Your task to perform on an android device: toggle show notifications on the lock screen Image 0: 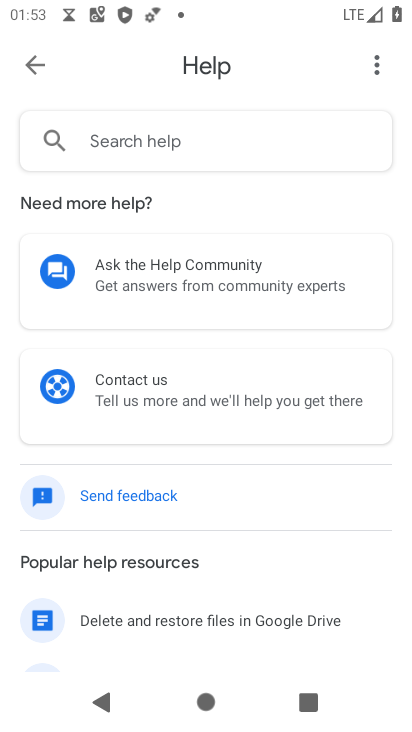
Step 0: press home button
Your task to perform on an android device: toggle show notifications on the lock screen Image 1: 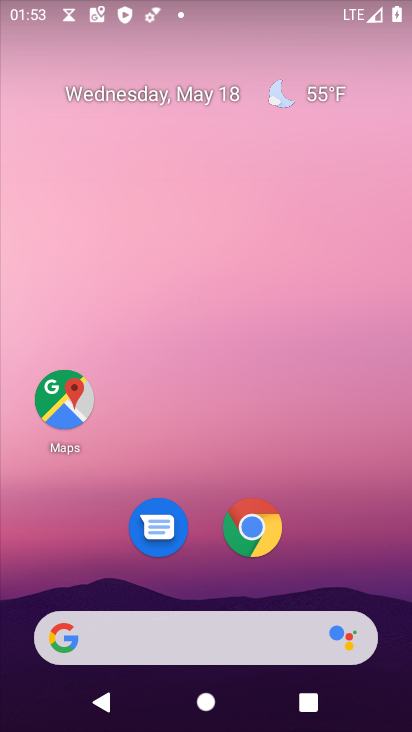
Step 1: drag from (291, 333) to (238, 138)
Your task to perform on an android device: toggle show notifications on the lock screen Image 2: 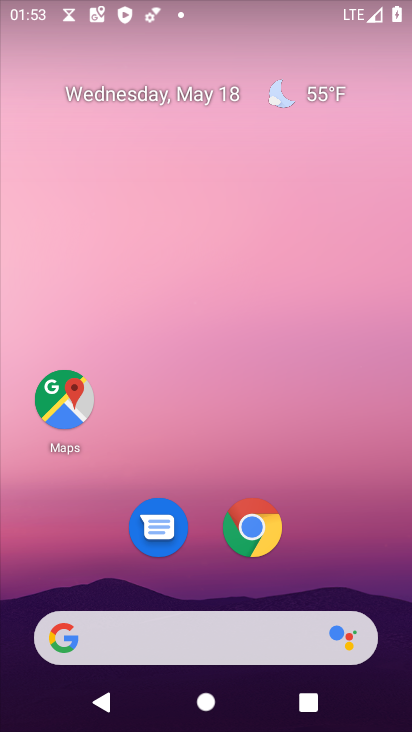
Step 2: drag from (307, 418) to (221, 12)
Your task to perform on an android device: toggle show notifications on the lock screen Image 3: 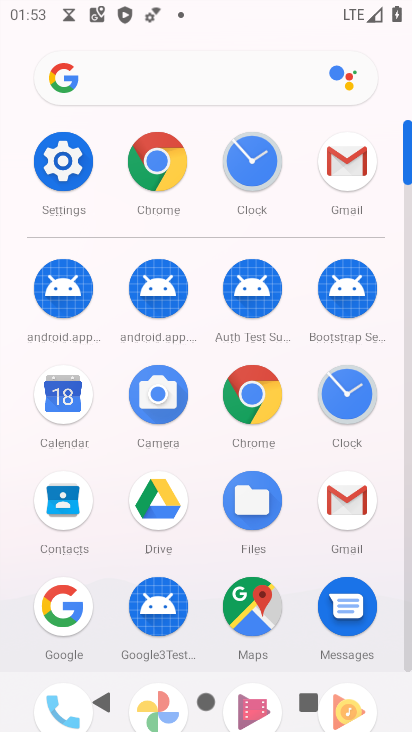
Step 3: click (74, 179)
Your task to perform on an android device: toggle show notifications on the lock screen Image 4: 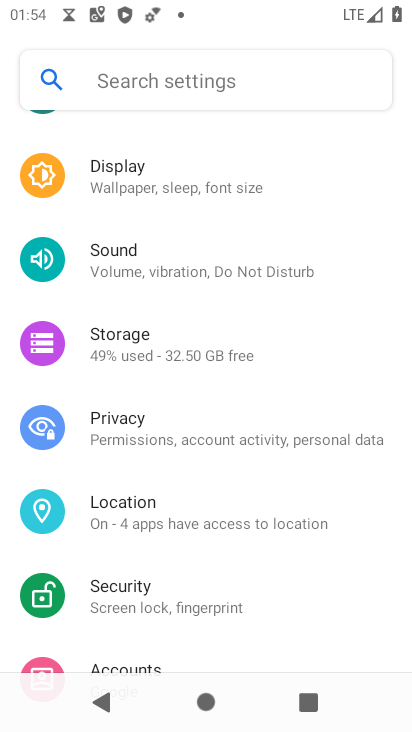
Step 4: drag from (301, 147) to (195, 574)
Your task to perform on an android device: toggle show notifications on the lock screen Image 5: 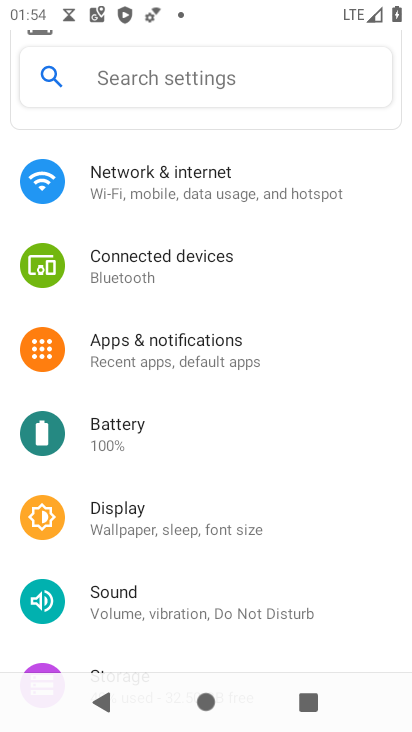
Step 5: click (165, 332)
Your task to perform on an android device: toggle show notifications on the lock screen Image 6: 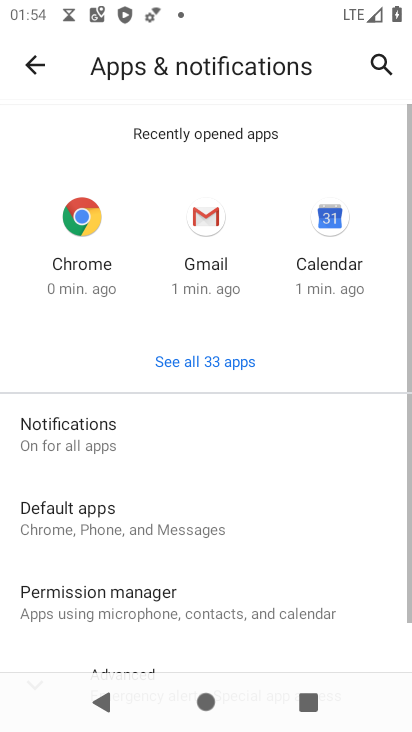
Step 6: click (193, 420)
Your task to perform on an android device: toggle show notifications on the lock screen Image 7: 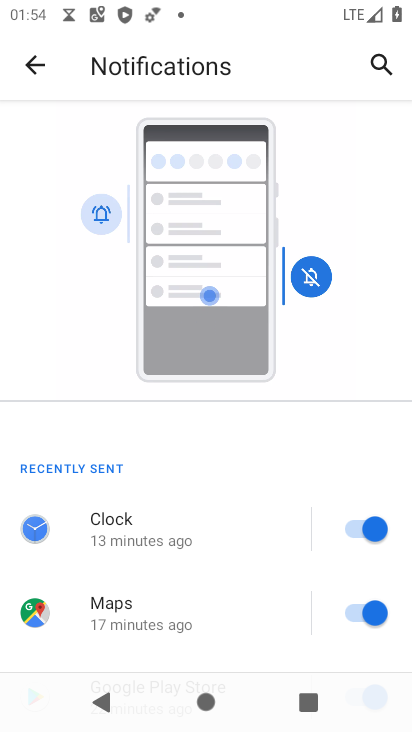
Step 7: drag from (223, 584) to (217, 181)
Your task to perform on an android device: toggle show notifications on the lock screen Image 8: 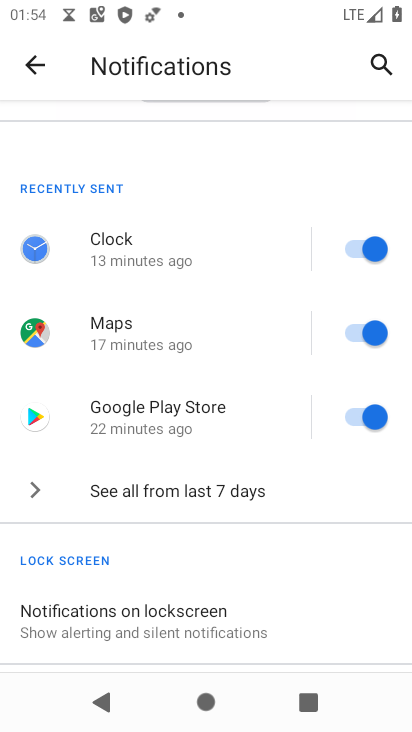
Step 8: click (175, 618)
Your task to perform on an android device: toggle show notifications on the lock screen Image 9: 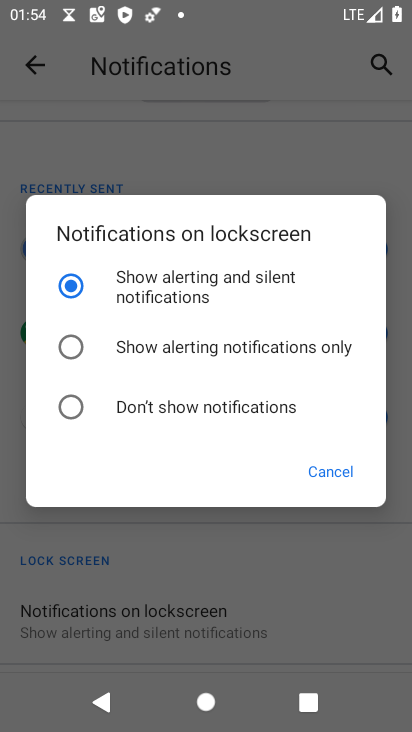
Step 9: click (138, 413)
Your task to perform on an android device: toggle show notifications on the lock screen Image 10: 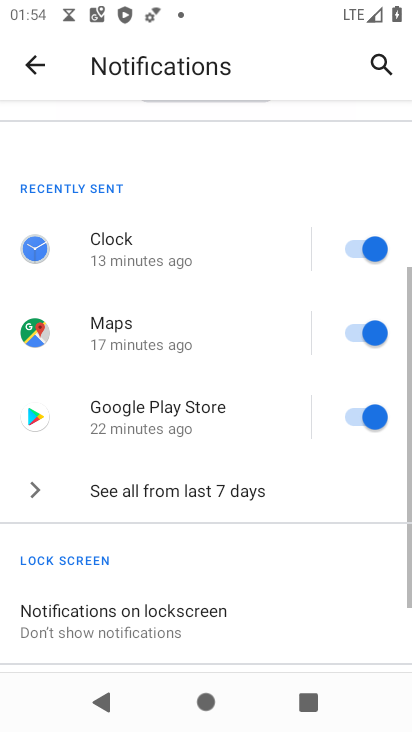
Step 10: task complete